Your task to perform on an android device: snooze an email in the gmail app Image 0: 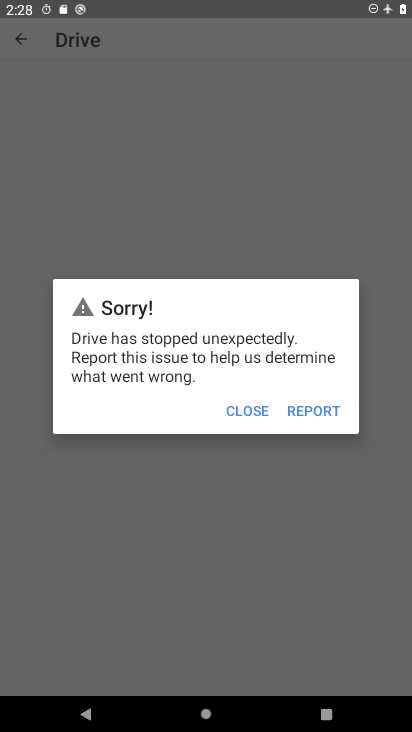
Step 0: press home button
Your task to perform on an android device: snooze an email in the gmail app Image 1: 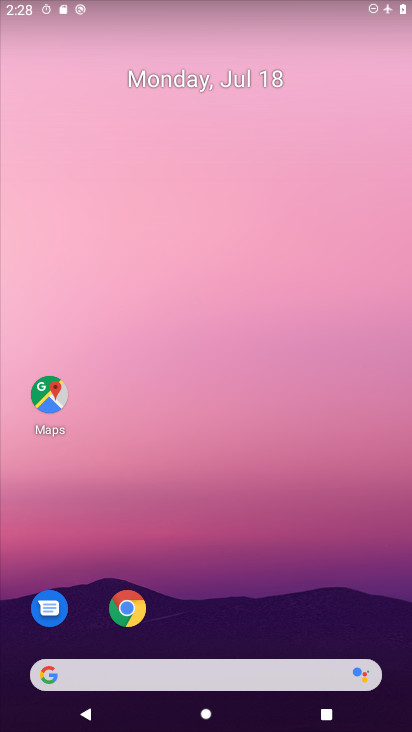
Step 1: drag from (252, 728) to (252, 119)
Your task to perform on an android device: snooze an email in the gmail app Image 2: 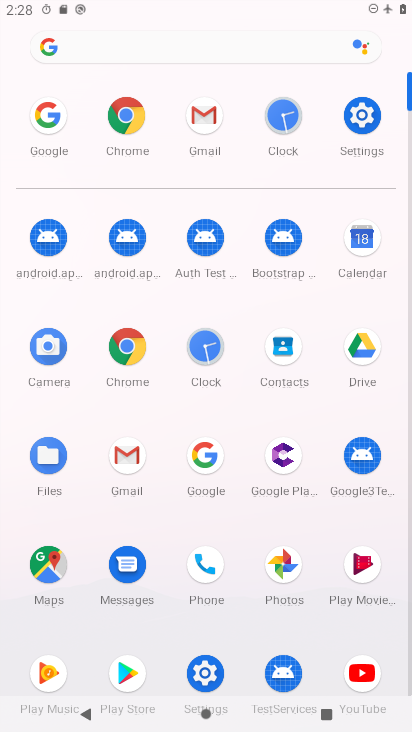
Step 2: click (133, 454)
Your task to perform on an android device: snooze an email in the gmail app Image 3: 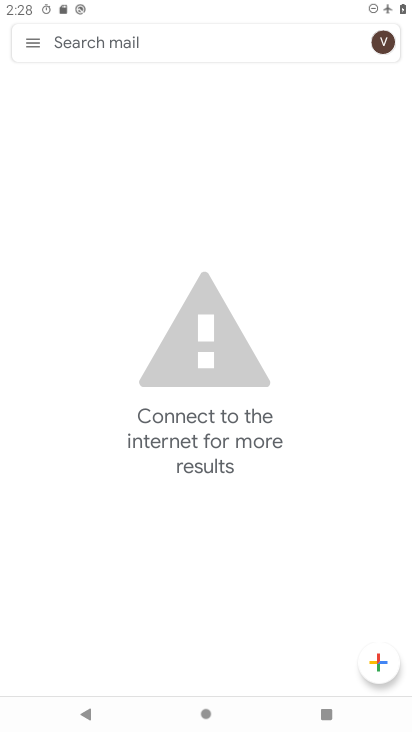
Step 3: press home button
Your task to perform on an android device: snooze an email in the gmail app Image 4: 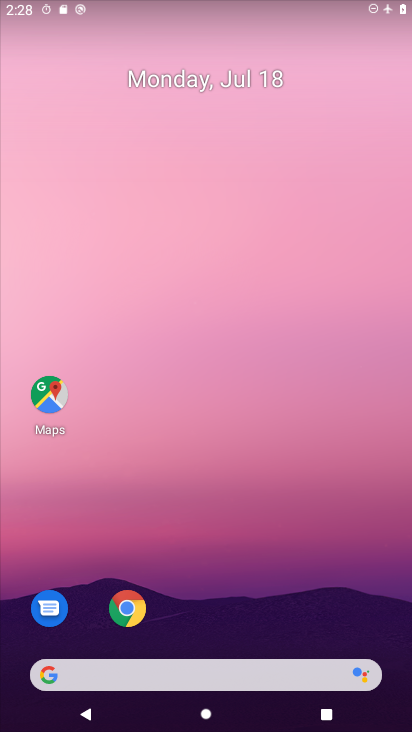
Step 4: drag from (222, 707) to (225, 322)
Your task to perform on an android device: snooze an email in the gmail app Image 5: 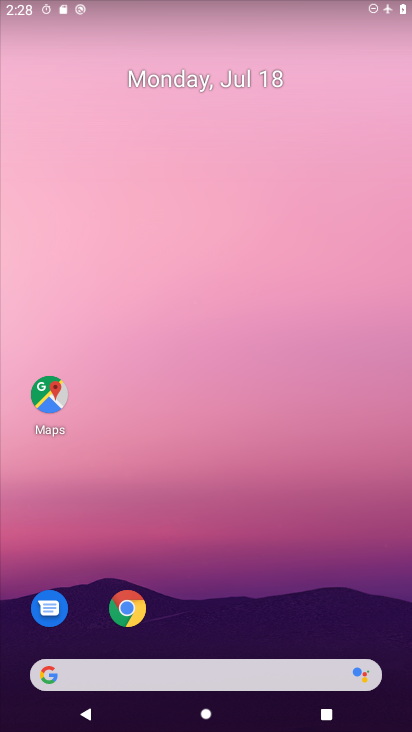
Step 5: drag from (232, 724) to (255, 230)
Your task to perform on an android device: snooze an email in the gmail app Image 6: 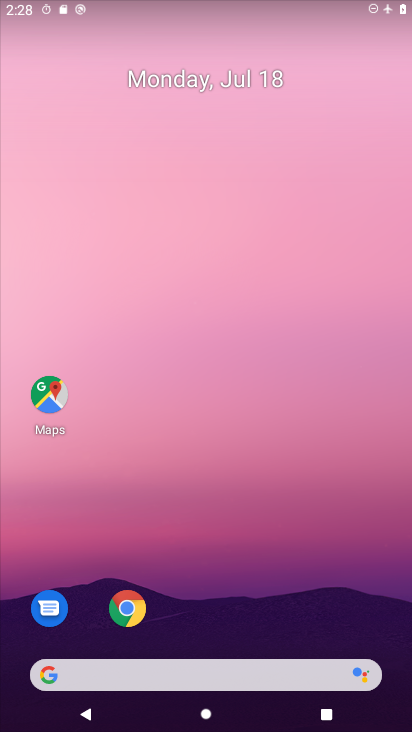
Step 6: drag from (246, 724) to (268, 146)
Your task to perform on an android device: snooze an email in the gmail app Image 7: 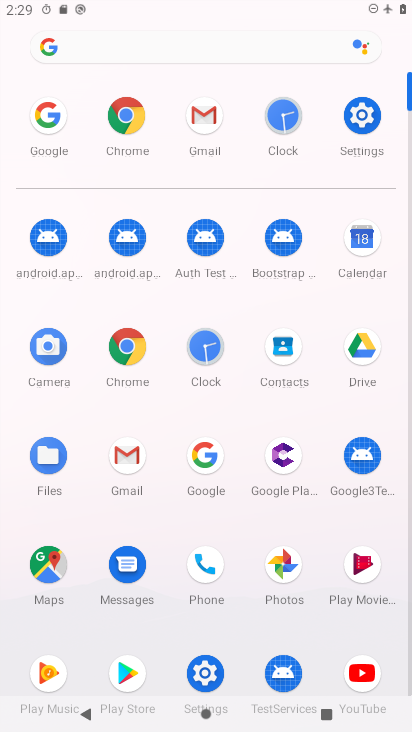
Step 7: click (132, 459)
Your task to perform on an android device: snooze an email in the gmail app Image 8: 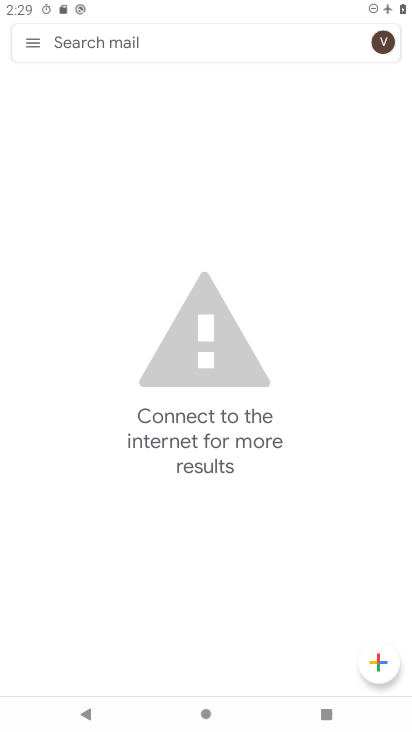
Step 8: click (31, 37)
Your task to perform on an android device: snooze an email in the gmail app Image 9: 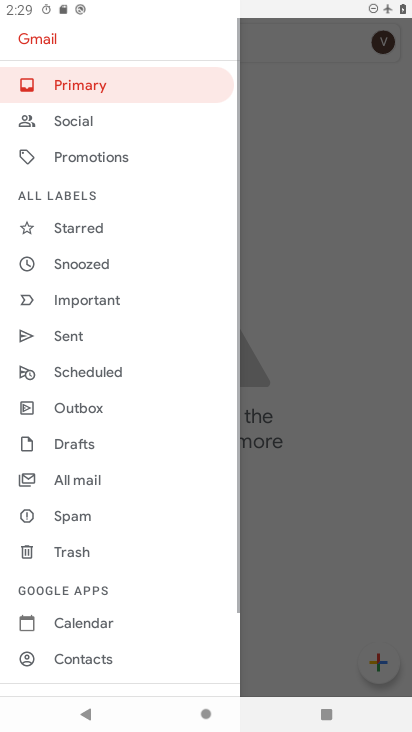
Step 9: click (95, 81)
Your task to perform on an android device: snooze an email in the gmail app Image 10: 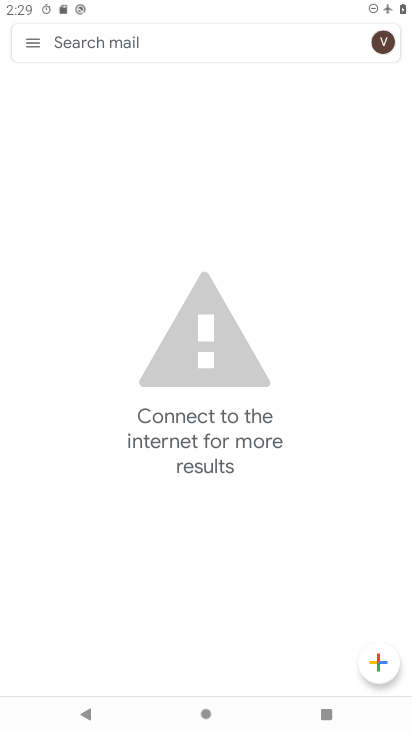
Step 10: task complete